Your task to perform on an android device: turn on sleep mode Image 0: 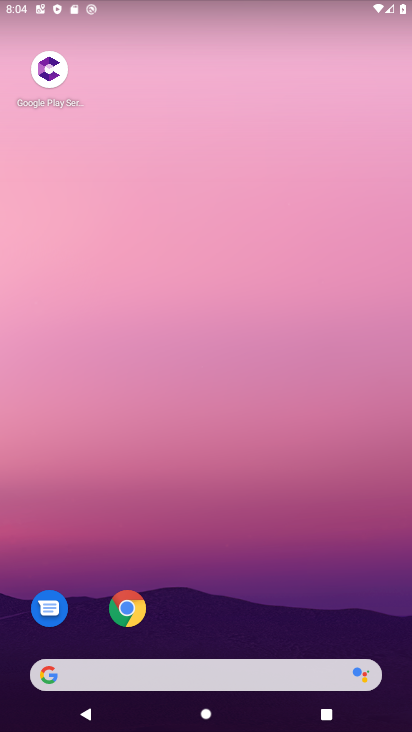
Step 0: drag from (216, 9) to (226, 678)
Your task to perform on an android device: turn on sleep mode Image 1: 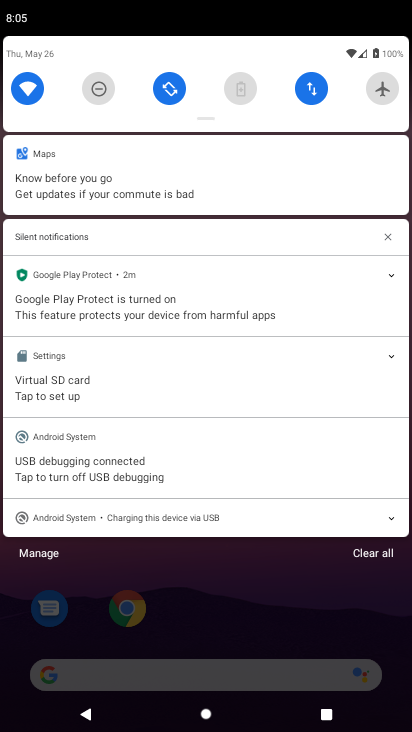
Step 1: drag from (205, 122) to (146, 563)
Your task to perform on an android device: turn on sleep mode Image 2: 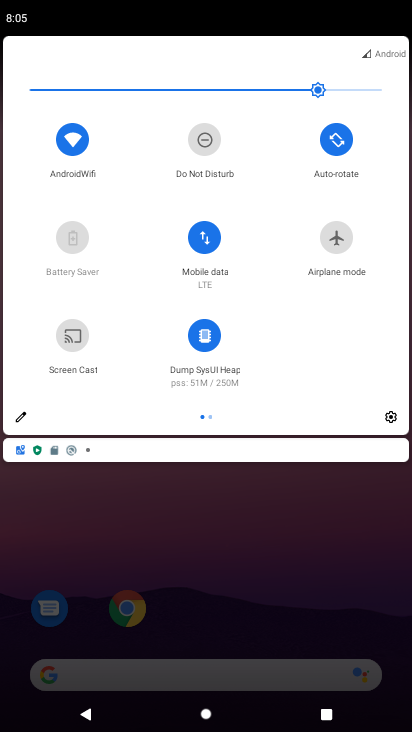
Step 2: click (18, 417)
Your task to perform on an android device: turn on sleep mode Image 3: 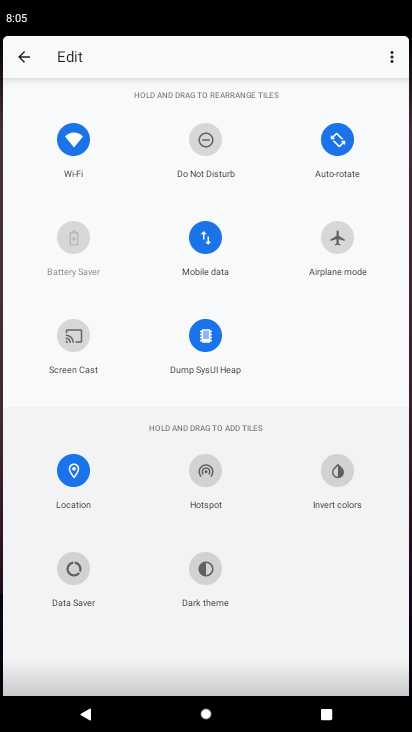
Step 3: press home button
Your task to perform on an android device: turn on sleep mode Image 4: 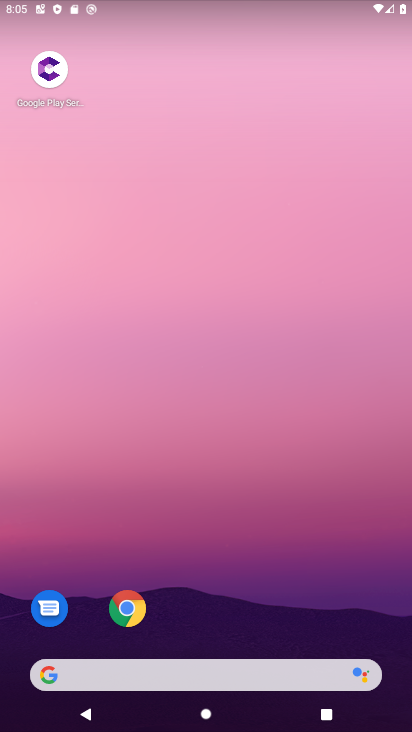
Step 4: drag from (137, 728) to (121, 179)
Your task to perform on an android device: turn on sleep mode Image 5: 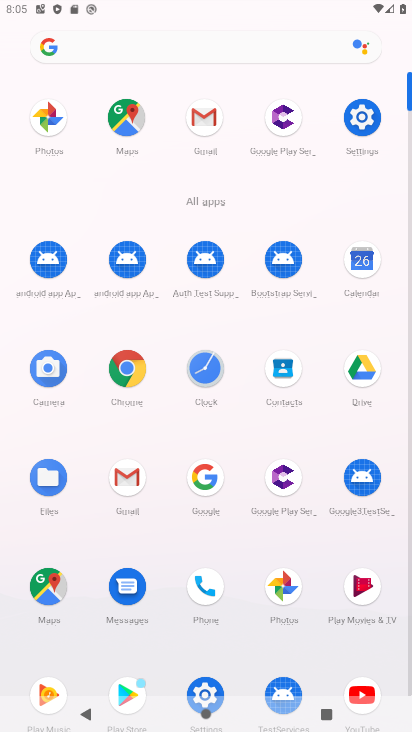
Step 5: click (357, 126)
Your task to perform on an android device: turn on sleep mode Image 6: 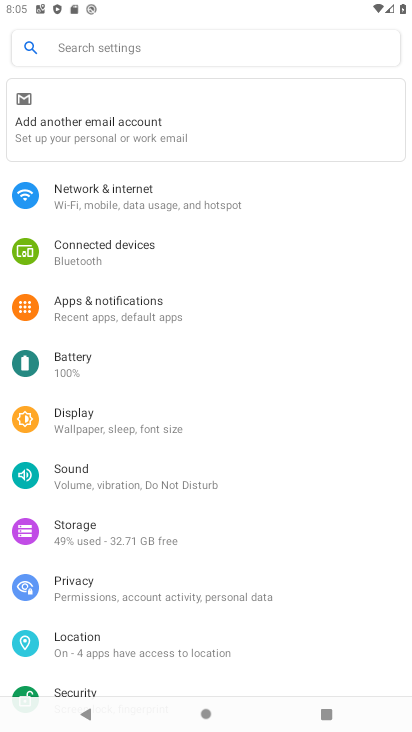
Step 6: task complete